Your task to perform on an android device: Go to notification settings Image 0: 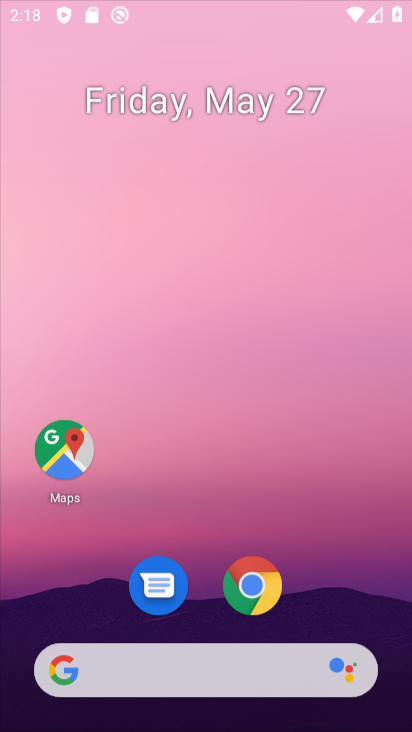
Step 0: press home button
Your task to perform on an android device: Go to notification settings Image 1: 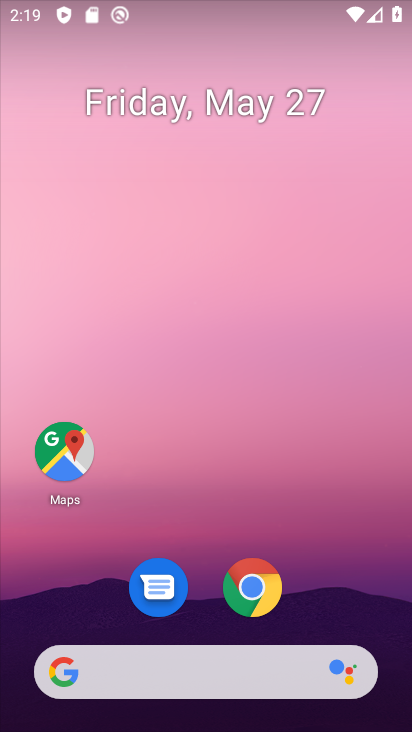
Step 1: drag from (320, 591) to (330, 246)
Your task to perform on an android device: Go to notification settings Image 2: 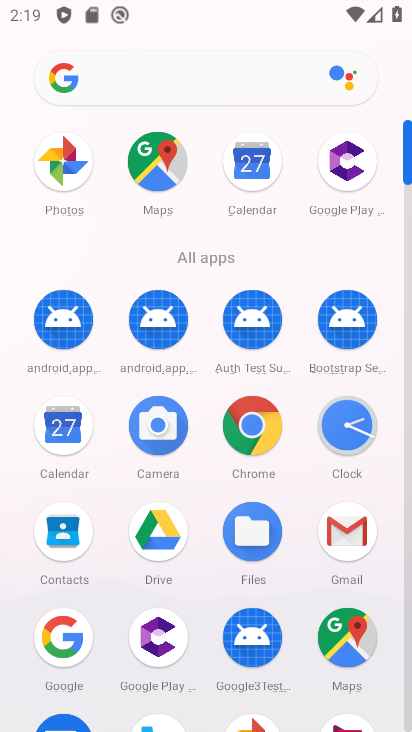
Step 2: drag from (376, 652) to (355, 63)
Your task to perform on an android device: Go to notification settings Image 3: 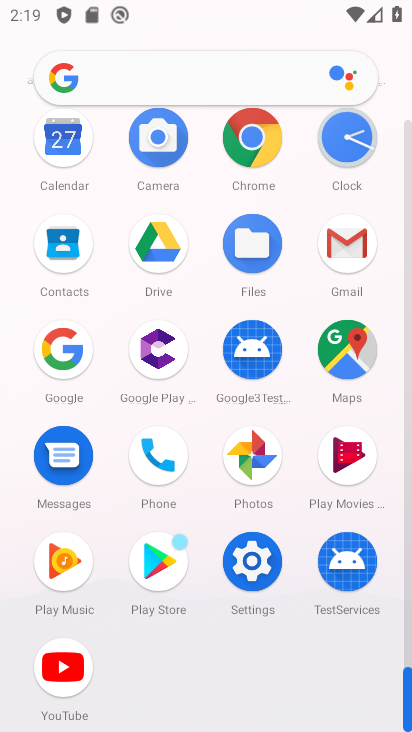
Step 3: click (258, 573)
Your task to perform on an android device: Go to notification settings Image 4: 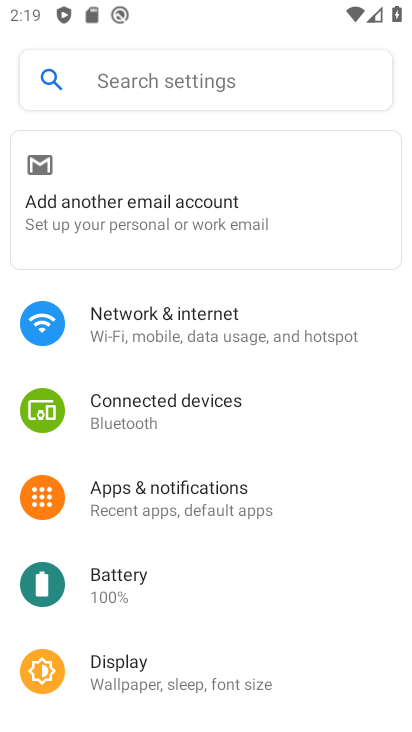
Step 4: click (141, 498)
Your task to perform on an android device: Go to notification settings Image 5: 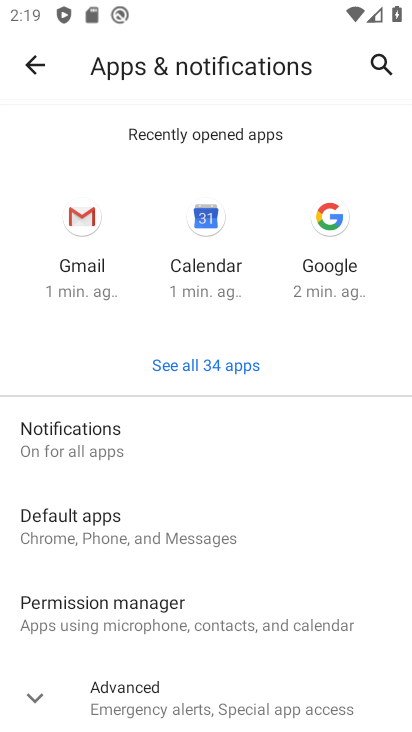
Step 5: click (69, 425)
Your task to perform on an android device: Go to notification settings Image 6: 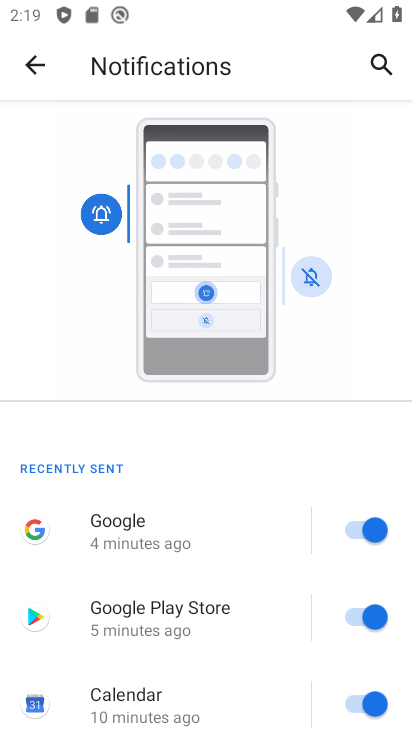
Step 6: task complete